Your task to perform on an android device: Open the calendar app, open the side menu, and click the "Day" option Image 0: 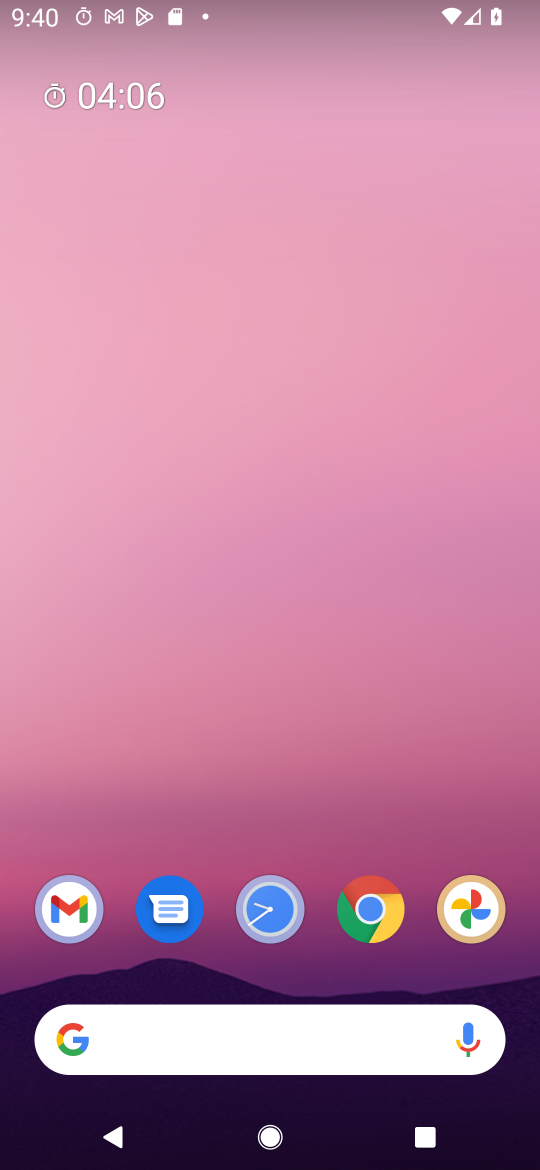
Step 0: press home button
Your task to perform on an android device: Open the calendar app, open the side menu, and click the "Day" option Image 1: 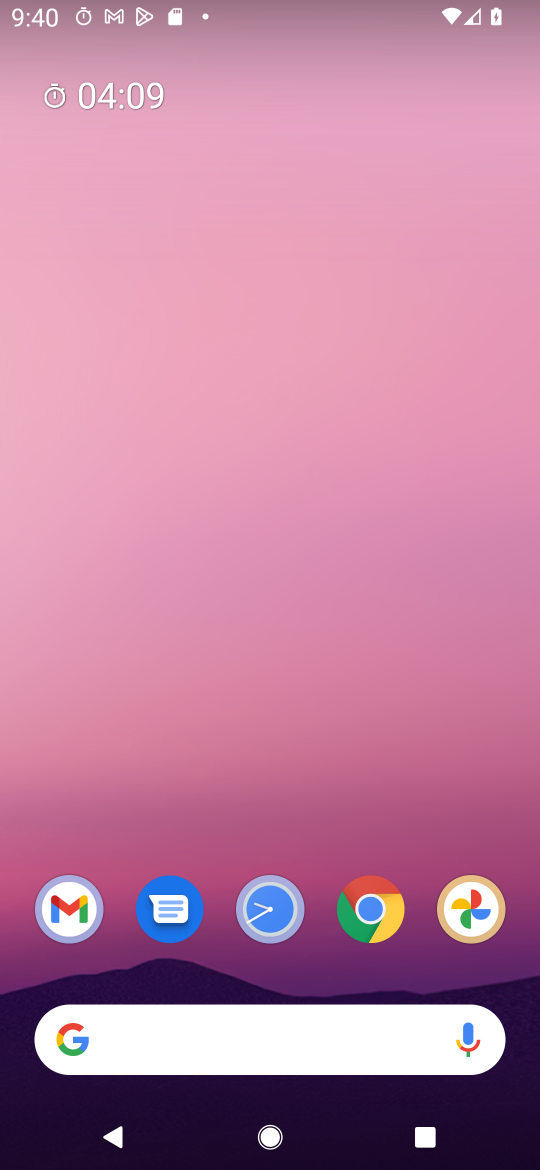
Step 1: drag from (415, 832) to (415, 267)
Your task to perform on an android device: Open the calendar app, open the side menu, and click the "Day" option Image 2: 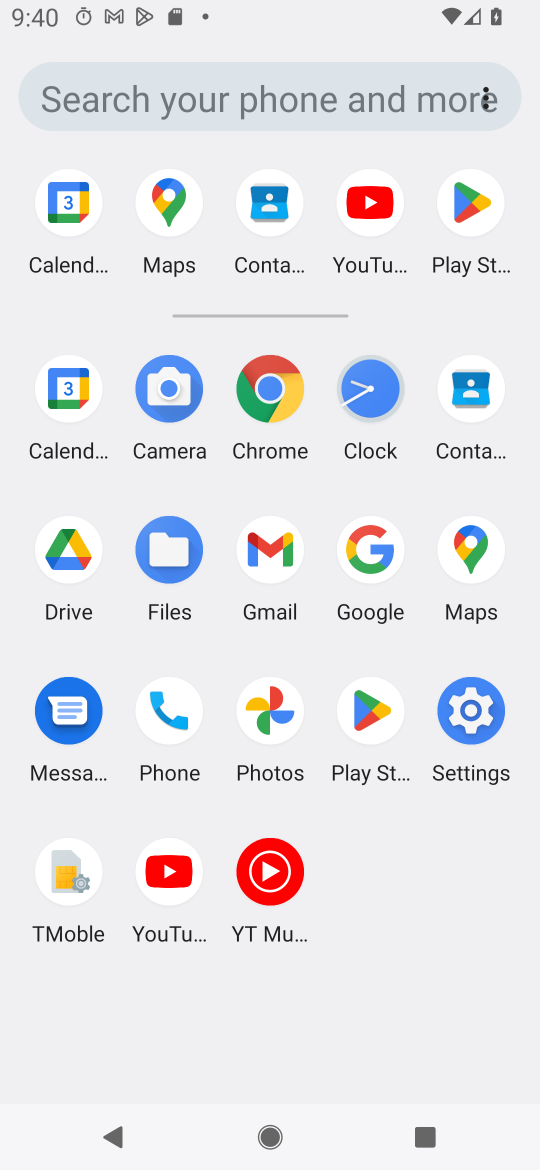
Step 2: click (67, 406)
Your task to perform on an android device: Open the calendar app, open the side menu, and click the "Day" option Image 3: 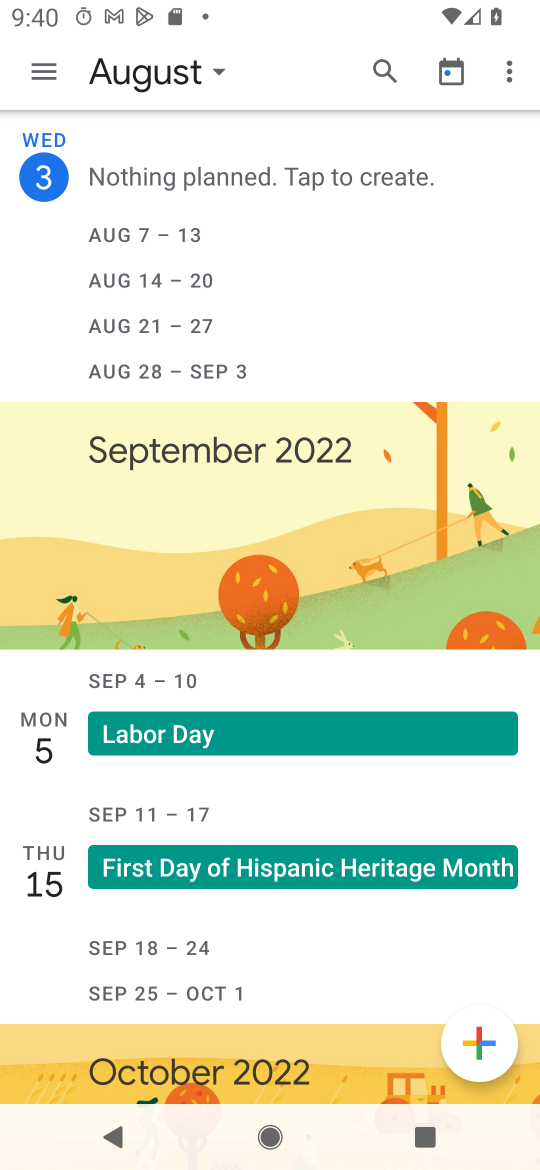
Step 3: click (46, 71)
Your task to perform on an android device: Open the calendar app, open the side menu, and click the "Day" option Image 4: 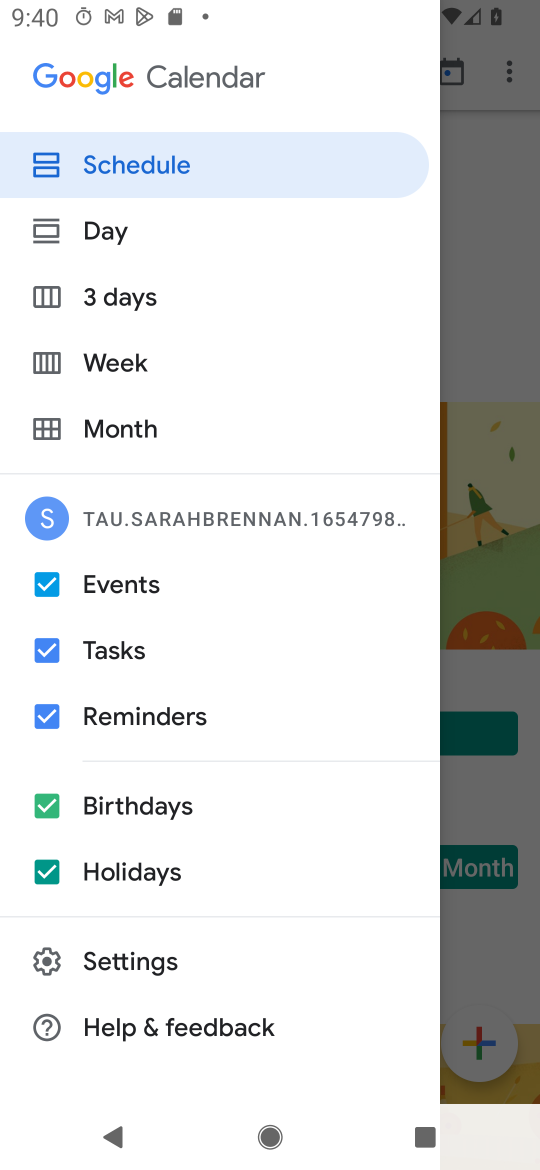
Step 4: click (145, 235)
Your task to perform on an android device: Open the calendar app, open the side menu, and click the "Day" option Image 5: 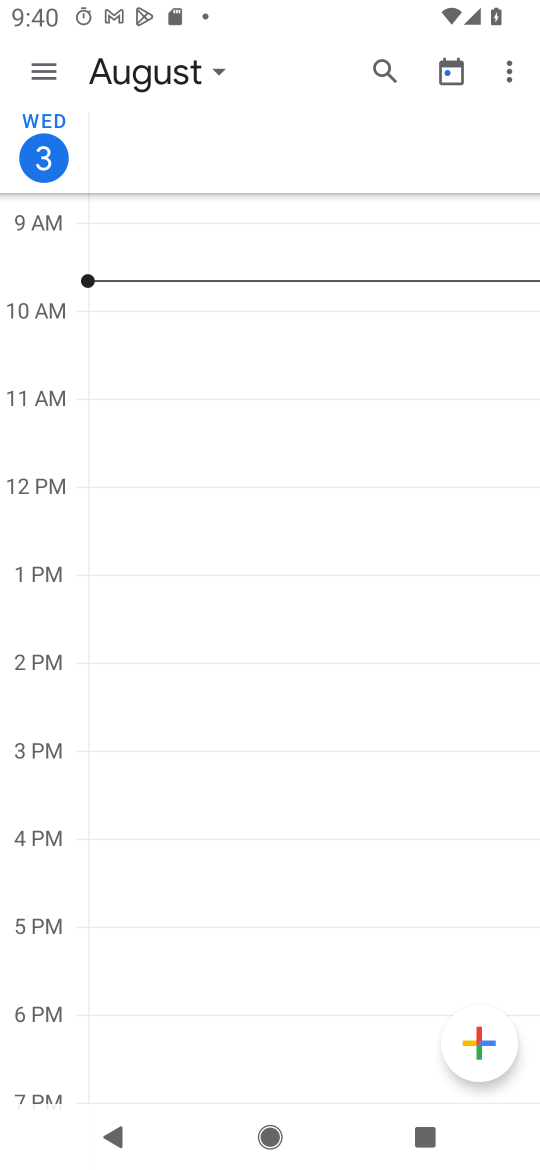
Step 5: task complete